Your task to perform on an android device: Go to sound settings Image 0: 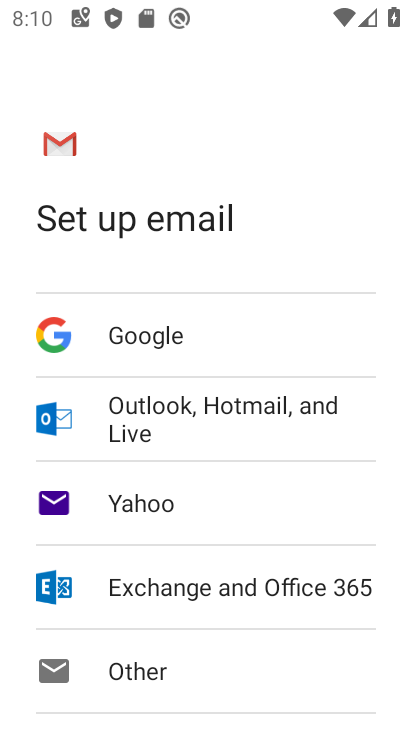
Step 0: press home button
Your task to perform on an android device: Go to sound settings Image 1: 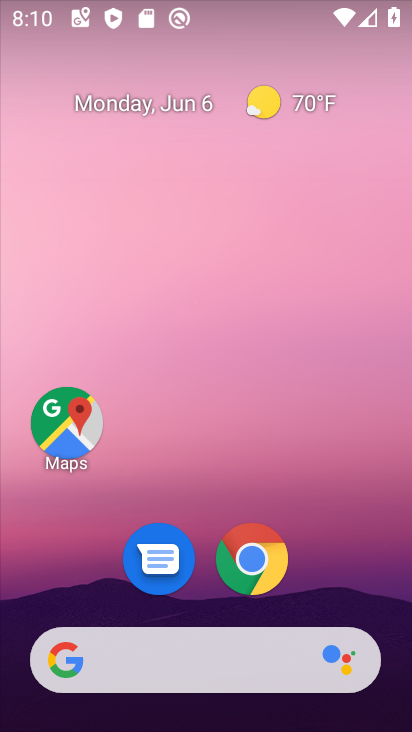
Step 1: click (257, 96)
Your task to perform on an android device: Go to sound settings Image 2: 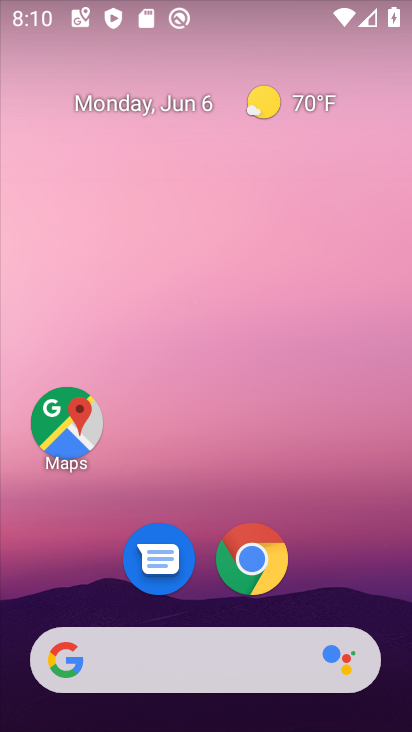
Step 2: click (259, 106)
Your task to perform on an android device: Go to sound settings Image 3: 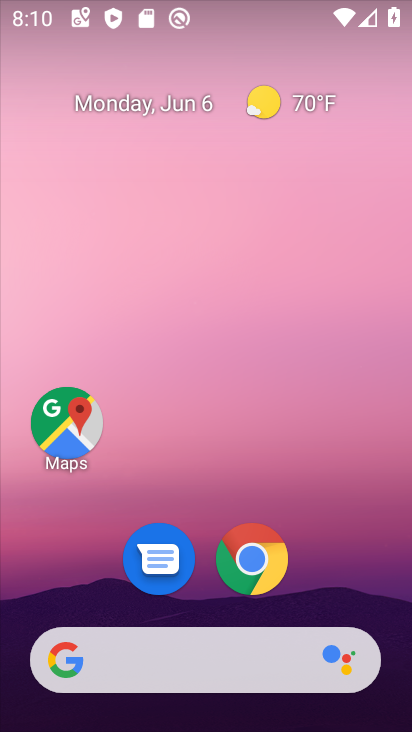
Step 3: drag from (209, 724) to (221, 134)
Your task to perform on an android device: Go to sound settings Image 4: 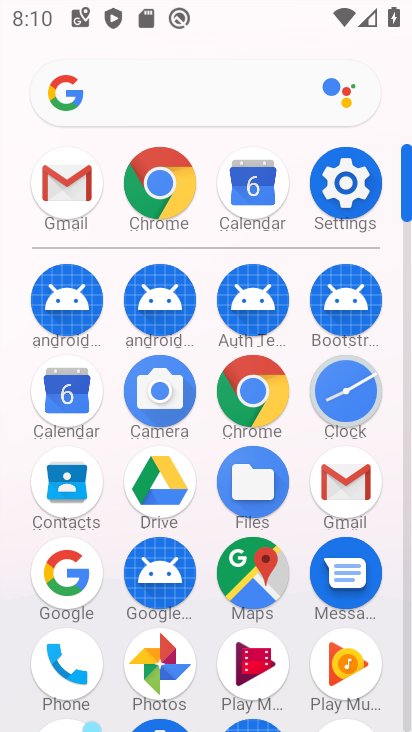
Step 4: click (341, 184)
Your task to perform on an android device: Go to sound settings Image 5: 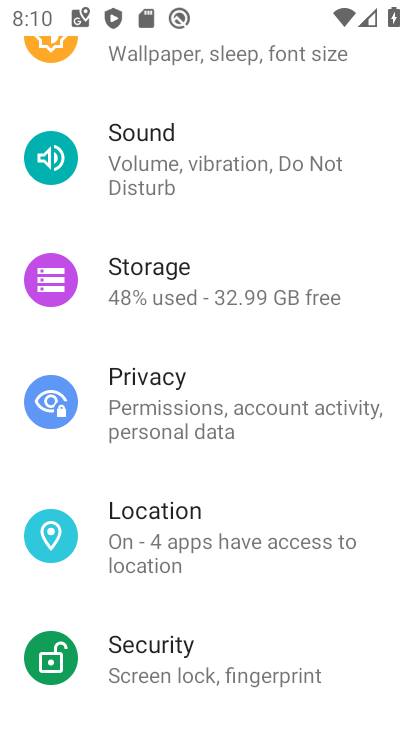
Step 5: click (167, 156)
Your task to perform on an android device: Go to sound settings Image 6: 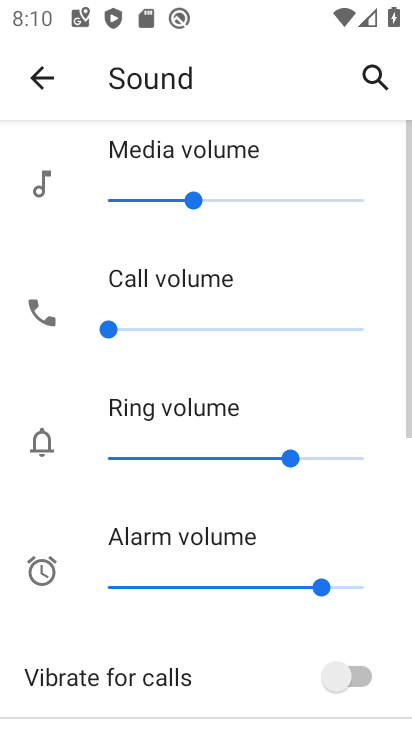
Step 6: task complete